Your task to perform on an android device: empty trash in the gmail app Image 0: 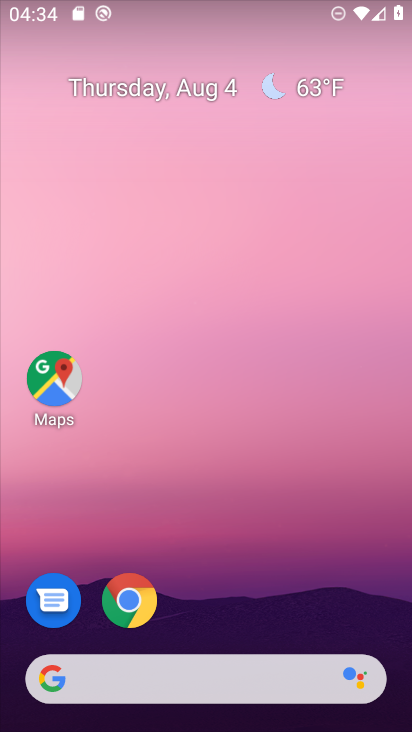
Step 0: drag from (257, 592) to (265, 79)
Your task to perform on an android device: empty trash in the gmail app Image 1: 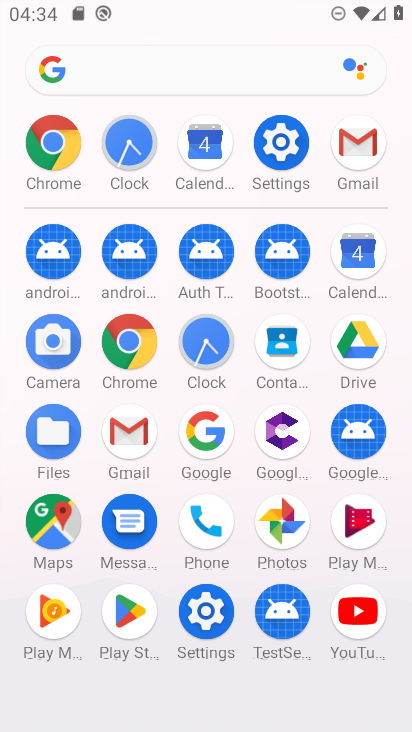
Step 1: click (133, 427)
Your task to perform on an android device: empty trash in the gmail app Image 2: 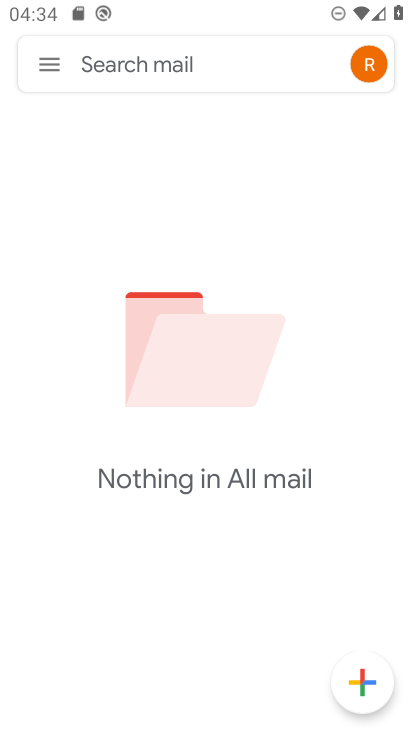
Step 2: click (51, 62)
Your task to perform on an android device: empty trash in the gmail app Image 3: 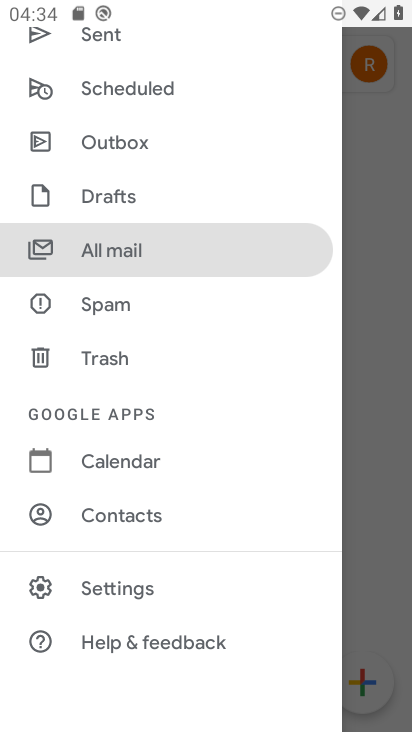
Step 3: click (104, 352)
Your task to perform on an android device: empty trash in the gmail app Image 4: 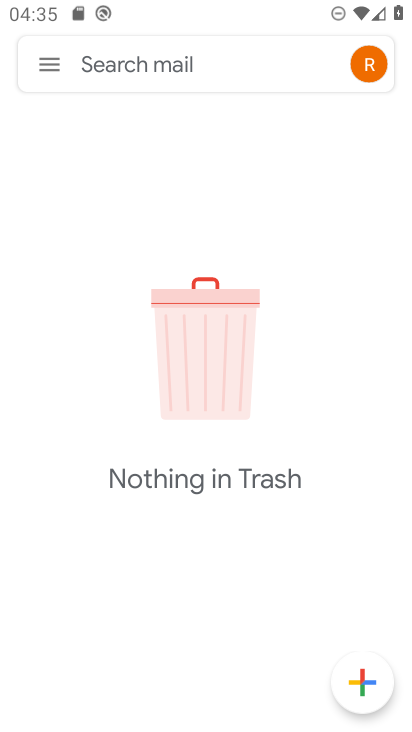
Step 4: task complete